Your task to perform on an android device: delete the emails in spam in the gmail app Image 0: 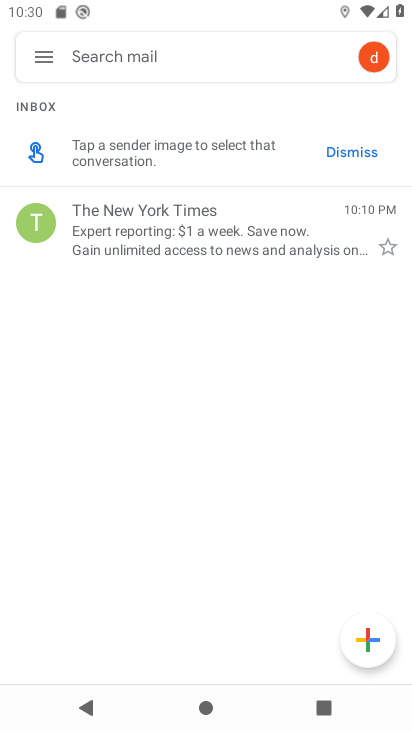
Step 0: press home button
Your task to perform on an android device: delete the emails in spam in the gmail app Image 1: 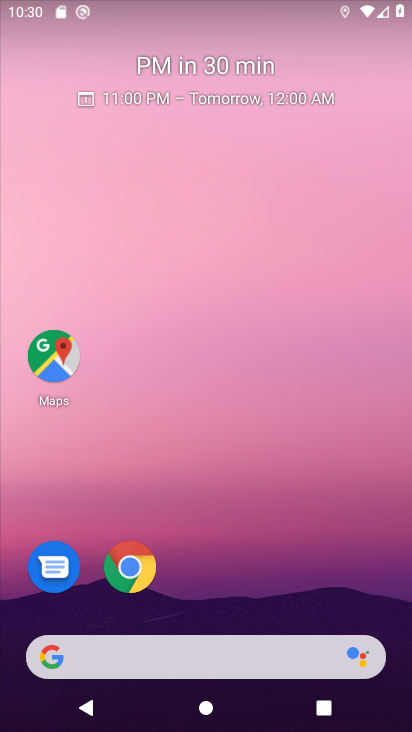
Step 1: click (185, 636)
Your task to perform on an android device: delete the emails in spam in the gmail app Image 2: 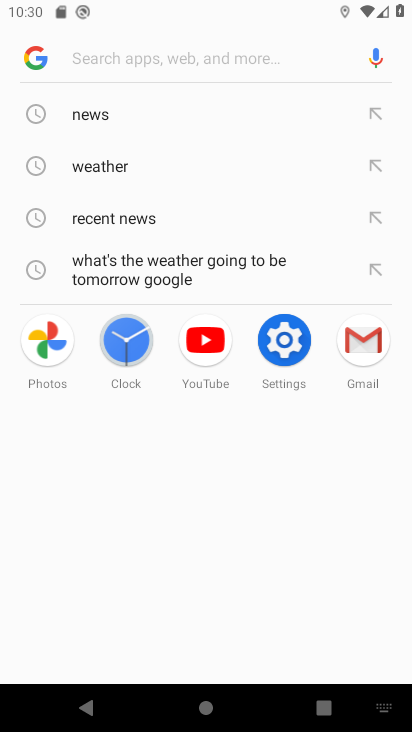
Step 2: click (371, 369)
Your task to perform on an android device: delete the emails in spam in the gmail app Image 3: 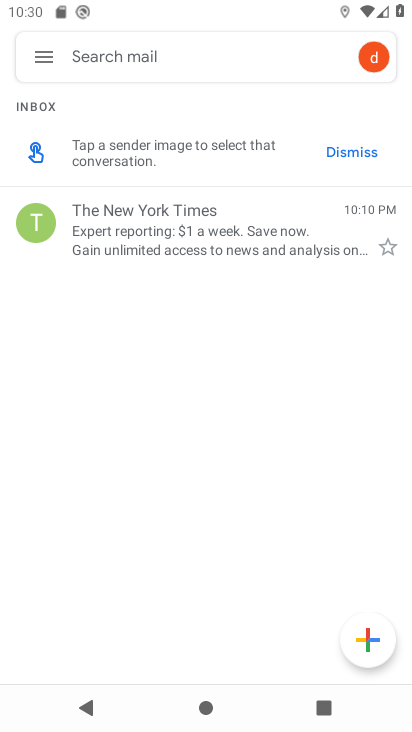
Step 3: click (57, 54)
Your task to perform on an android device: delete the emails in spam in the gmail app Image 4: 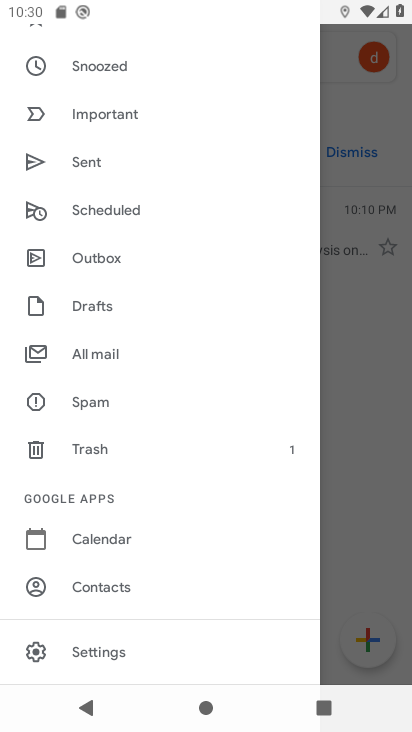
Step 4: click (92, 407)
Your task to perform on an android device: delete the emails in spam in the gmail app Image 5: 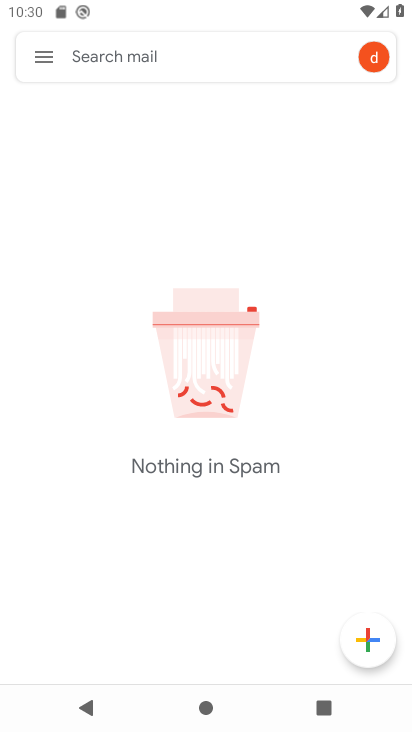
Step 5: task complete